Your task to perform on an android device: Open the calendar and show me this week's events? Image 0: 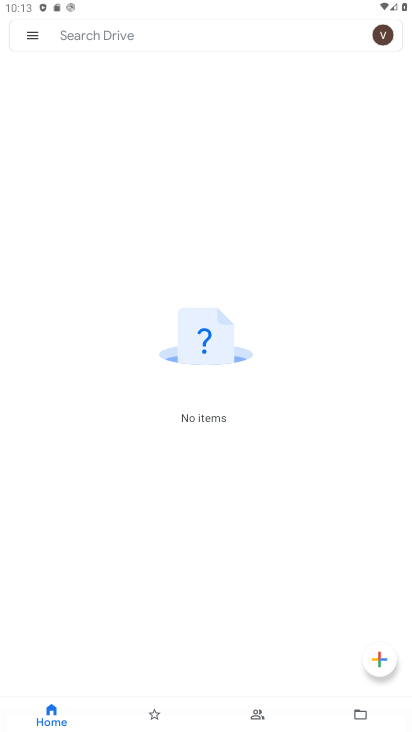
Step 0: press home button
Your task to perform on an android device: Open the calendar and show me this week's events? Image 1: 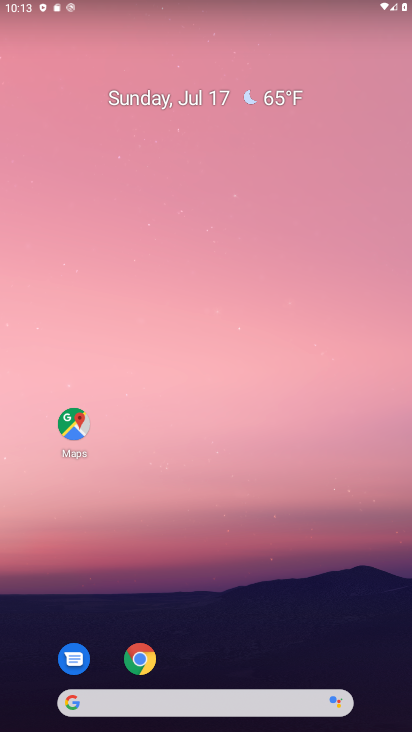
Step 1: drag from (202, 688) to (193, 109)
Your task to perform on an android device: Open the calendar and show me this week's events? Image 2: 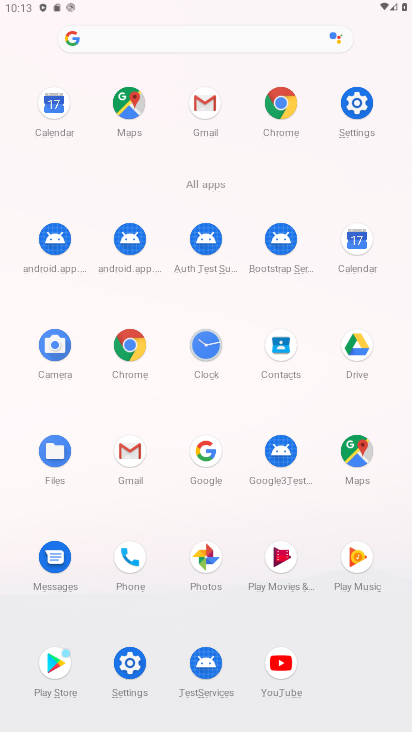
Step 2: click (345, 264)
Your task to perform on an android device: Open the calendar and show me this week's events? Image 3: 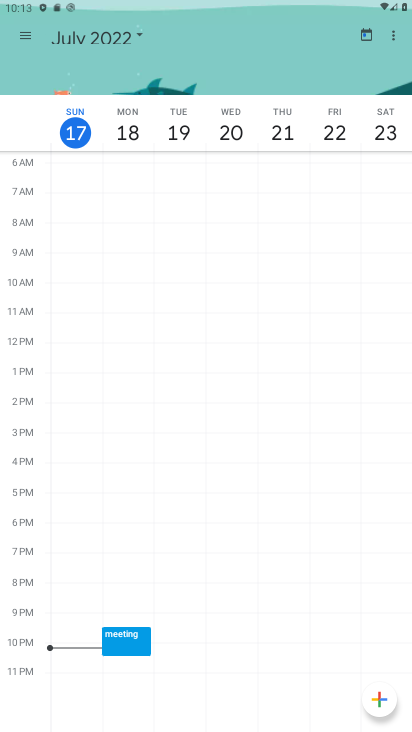
Step 3: task complete